Your task to perform on an android device: Open Google Chrome and open the bookmarks view Image 0: 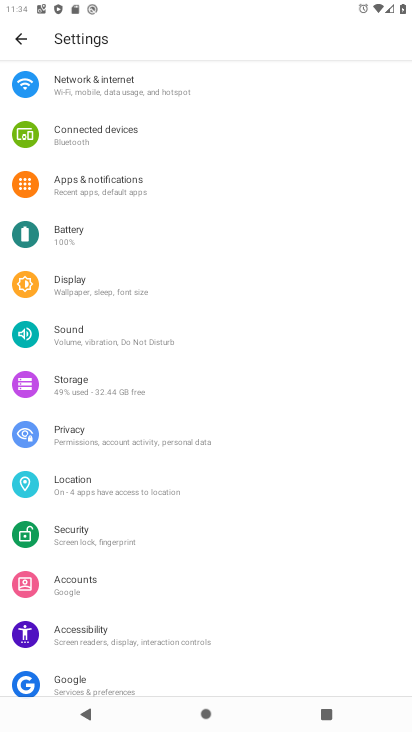
Step 0: press home button
Your task to perform on an android device: Open Google Chrome and open the bookmarks view Image 1: 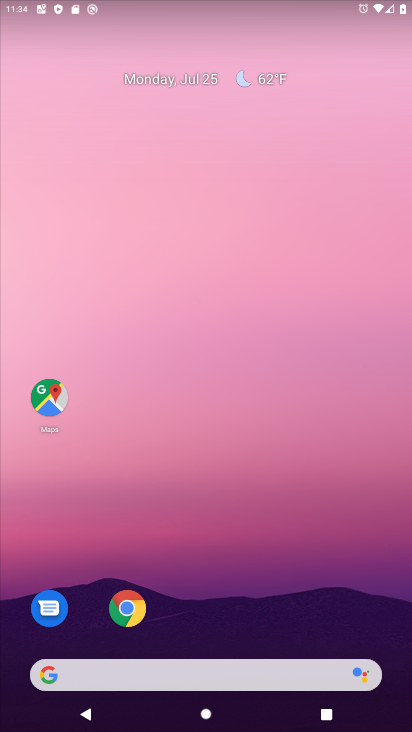
Step 1: click (142, 612)
Your task to perform on an android device: Open Google Chrome and open the bookmarks view Image 2: 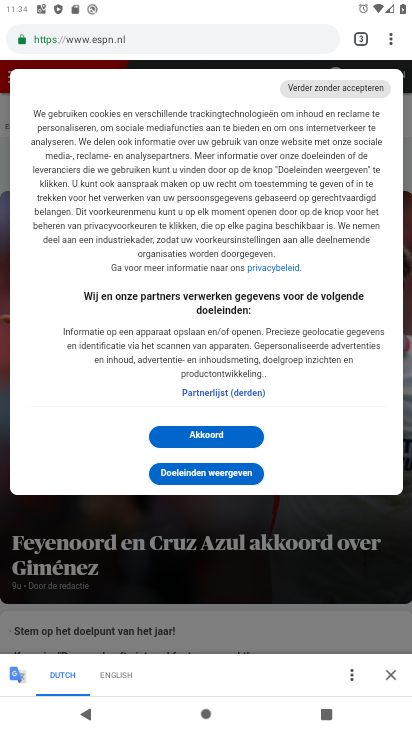
Step 2: click (385, 37)
Your task to perform on an android device: Open Google Chrome and open the bookmarks view Image 3: 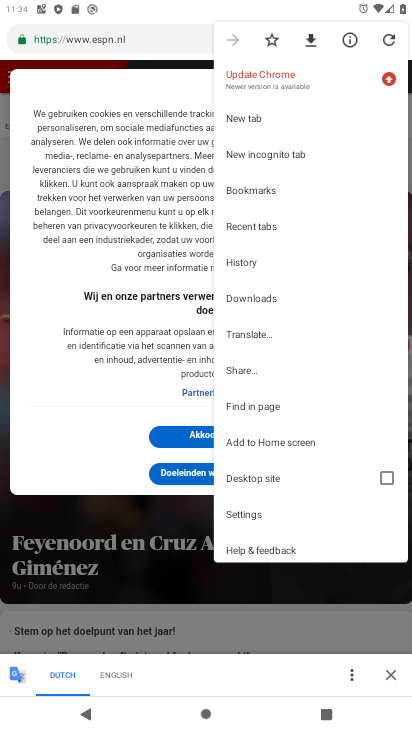
Step 3: click (254, 192)
Your task to perform on an android device: Open Google Chrome and open the bookmarks view Image 4: 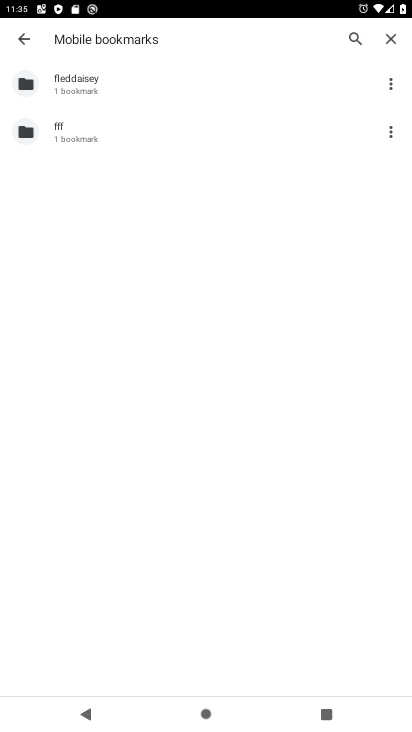
Step 4: task complete